Your task to perform on an android device: change the clock style Image 0: 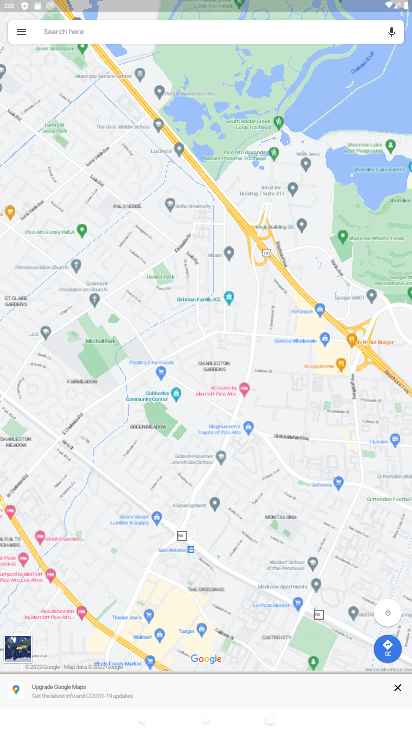
Step 0: press home button
Your task to perform on an android device: change the clock style Image 1: 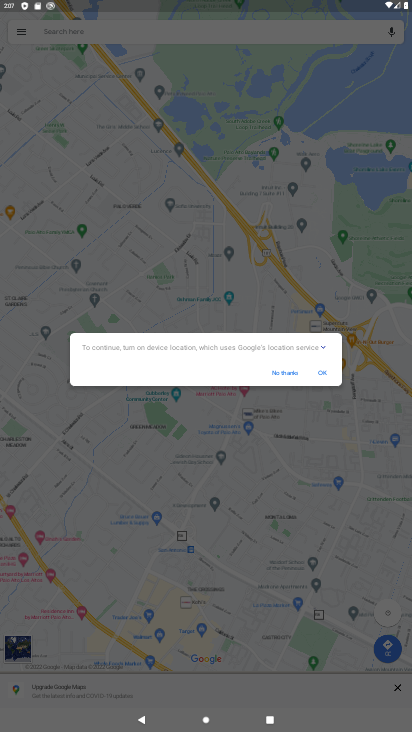
Step 1: press home button
Your task to perform on an android device: change the clock style Image 2: 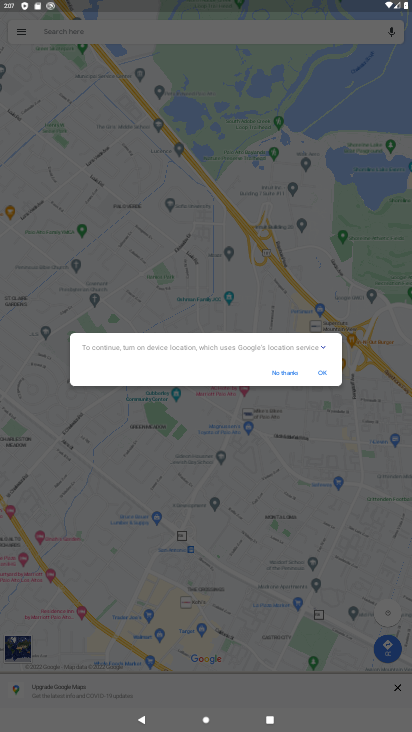
Step 2: click (209, 201)
Your task to perform on an android device: change the clock style Image 3: 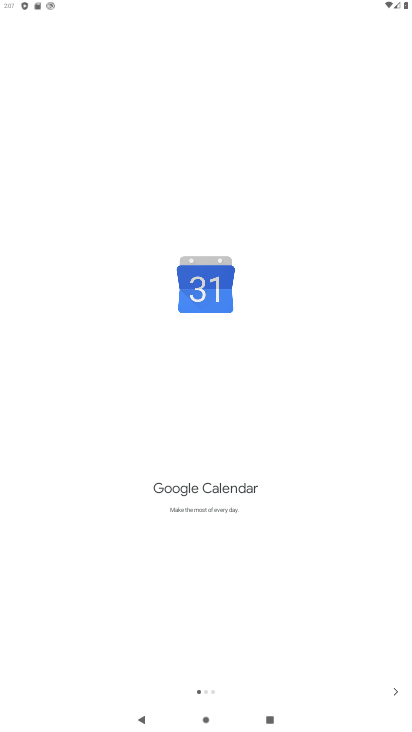
Step 3: drag from (167, 683) to (232, 251)
Your task to perform on an android device: change the clock style Image 4: 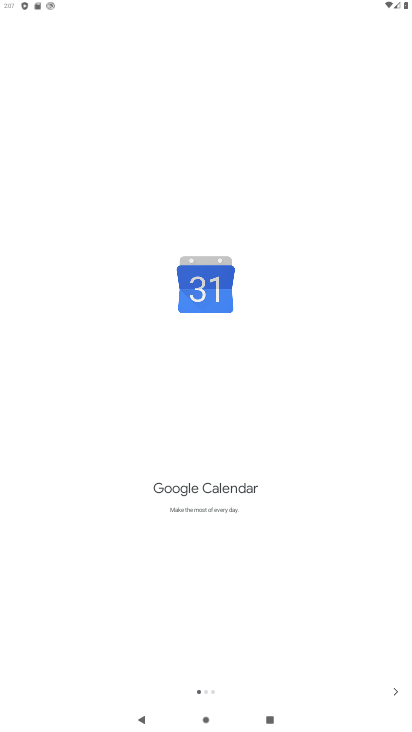
Step 4: click (388, 686)
Your task to perform on an android device: change the clock style Image 5: 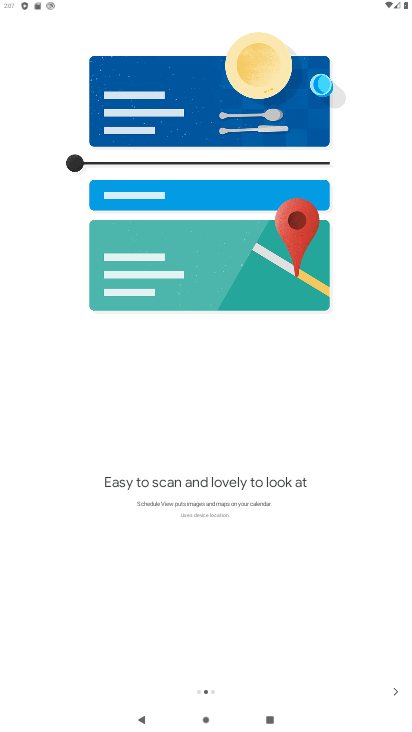
Step 5: press home button
Your task to perform on an android device: change the clock style Image 6: 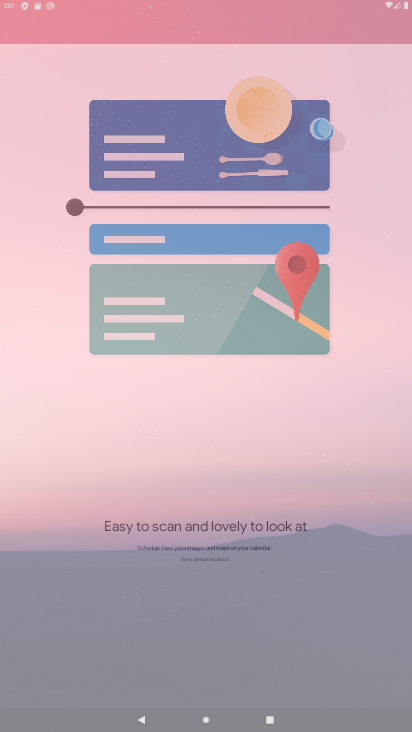
Step 6: drag from (234, 609) to (312, 56)
Your task to perform on an android device: change the clock style Image 7: 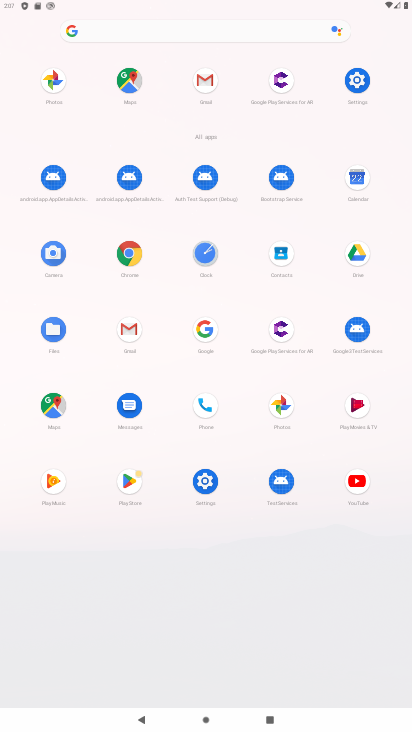
Step 7: click (197, 246)
Your task to perform on an android device: change the clock style Image 8: 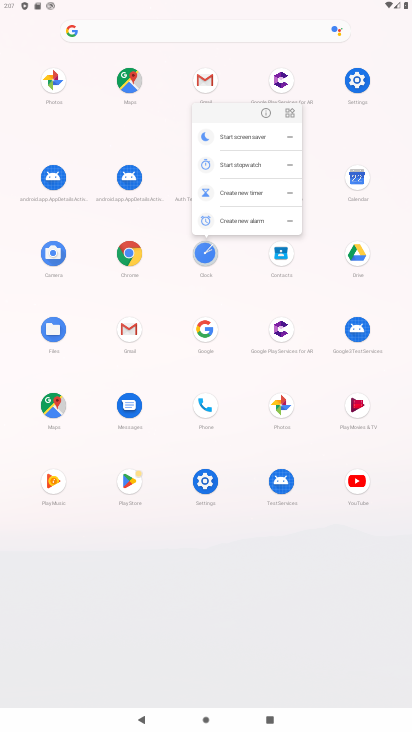
Step 8: click (265, 112)
Your task to perform on an android device: change the clock style Image 9: 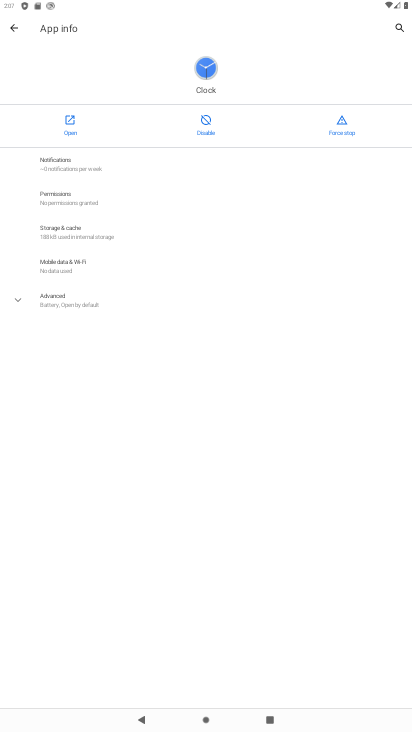
Step 9: click (65, 122)
Your task to perform on an android device: change the clock style Image 10: 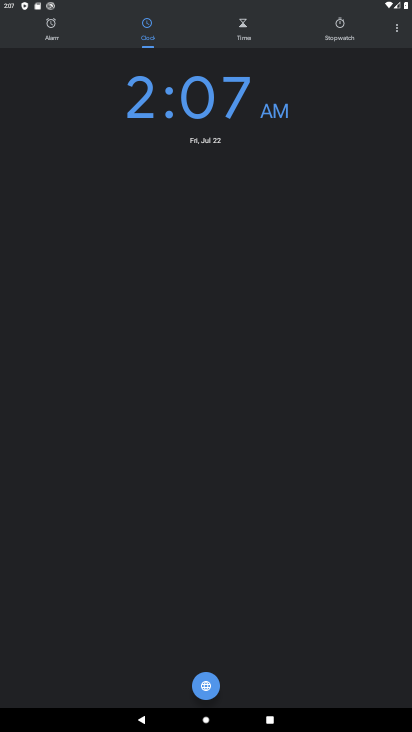
Step 10: drag from (401, 26) to (339, 56)
Your task to perform on an android device: change the clock style Image 11: 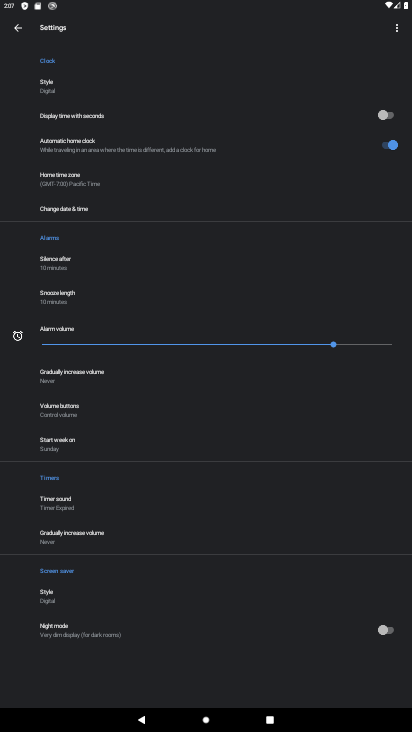
Step 11: drag from (141, 501) to (169, 211)
Your task to perform on an android device: change the clock style Image 12: 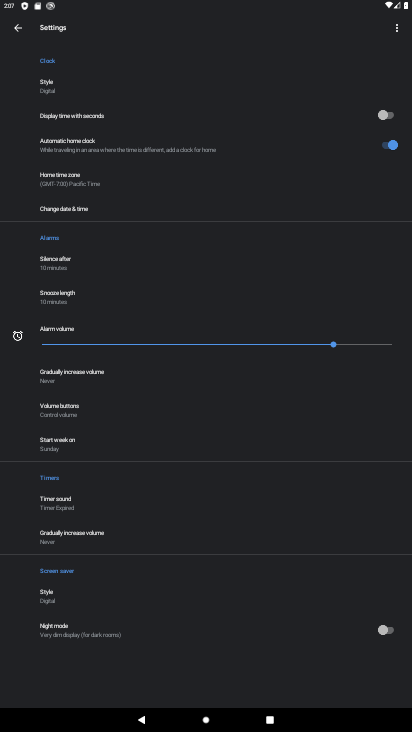
Step 12: drag from (170, 146) to (203, 553)
Your task to perform on an android device: change the clock style Image 13: 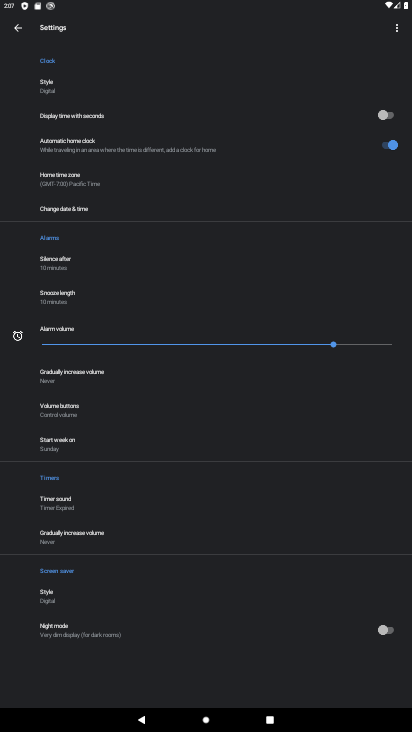
Step 13: drag from (188, 171) to (237, 541)
Your task to perform on an android device: change the clock style Image 14: 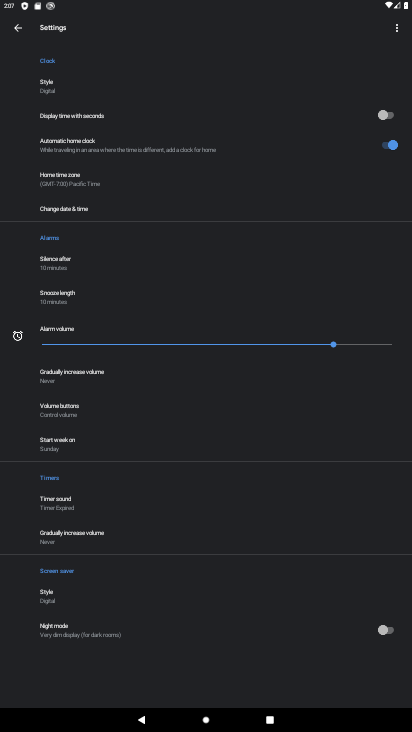
Step 14: drag from (208, 200) to (200, 358)
Your task to perform on an android device: change the clock style Image 15: 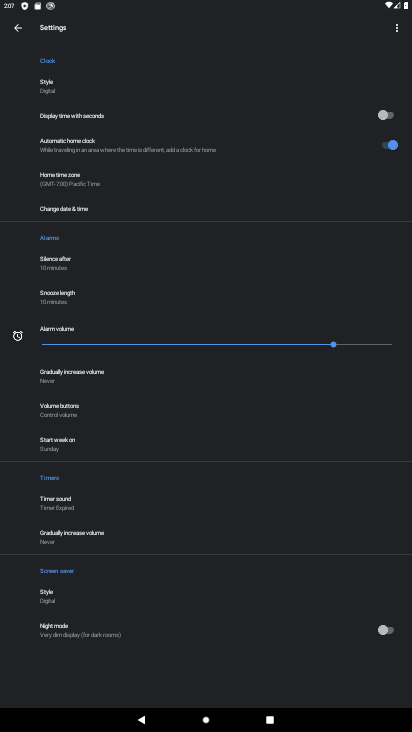
Step 15: drag from (231, 241) to (221, 576)
Your task to perform on an android device: change the clock style Image 16: 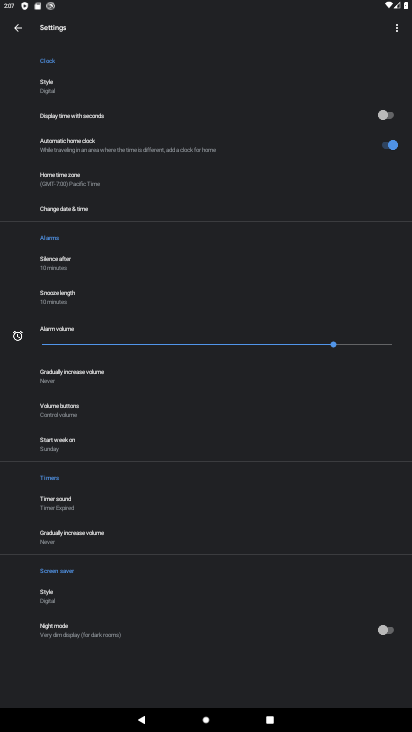
Step 16: drag from (239, 581) to (254, 296)
Your task to perform on an android device: change the clock style Image 17: 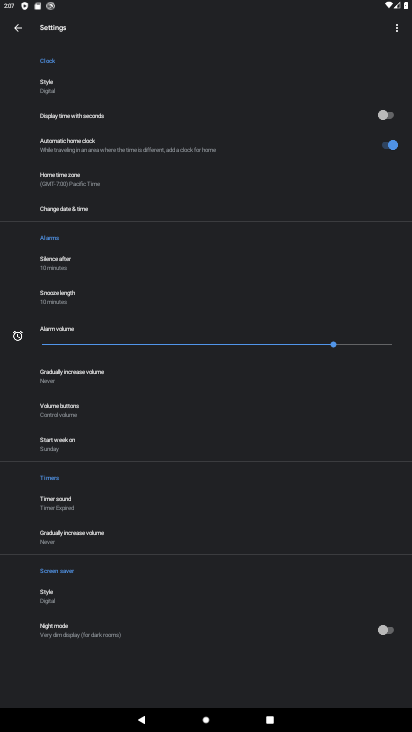
Step 17: click (67, 87)
Your task to perform on an android device: change the clock style Image 18: 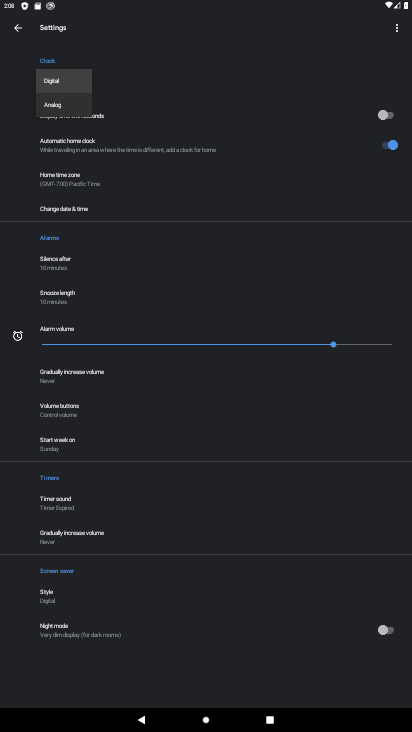
Step 18: click (65, 109)
Your task to perform on an android device: change the clock style Image 19: 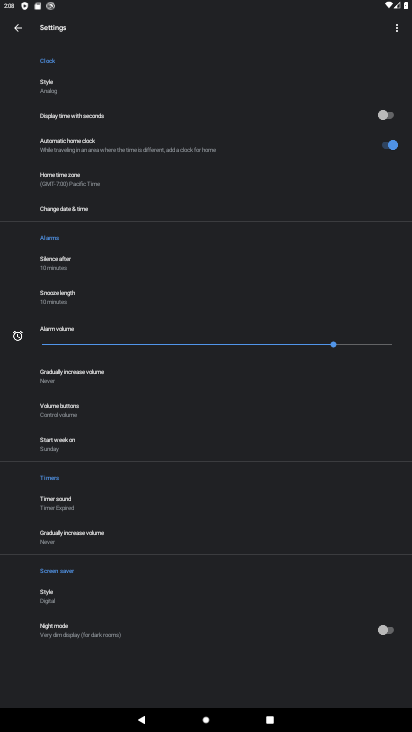
Step 19: task complete